Your task to perform on an android device: snooze an email in the gmail app Image 0: 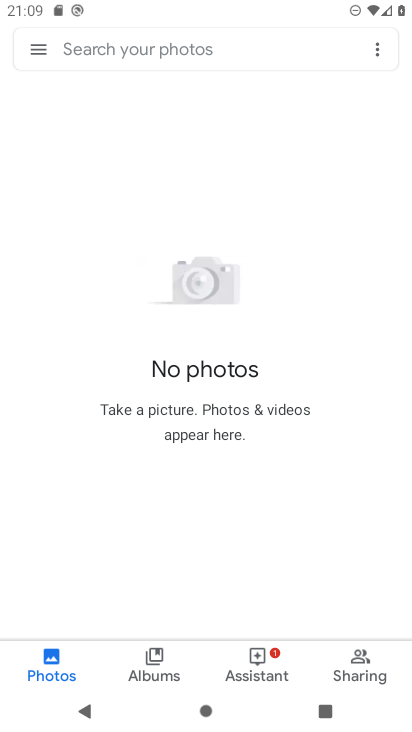
Step 0: press home button
Your task to perform on an android device: snooze an email in the gmail app Image 1: 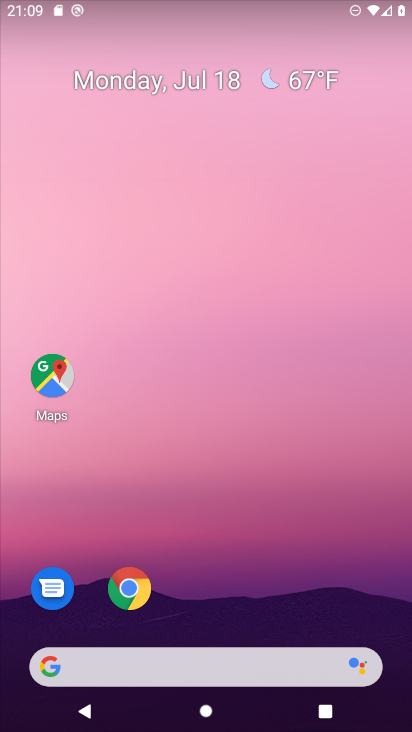
Step 1: drag from (381, 630) to (314, 122)
Your task to perform on an android device: snooze an email in the gmail app Image 2: 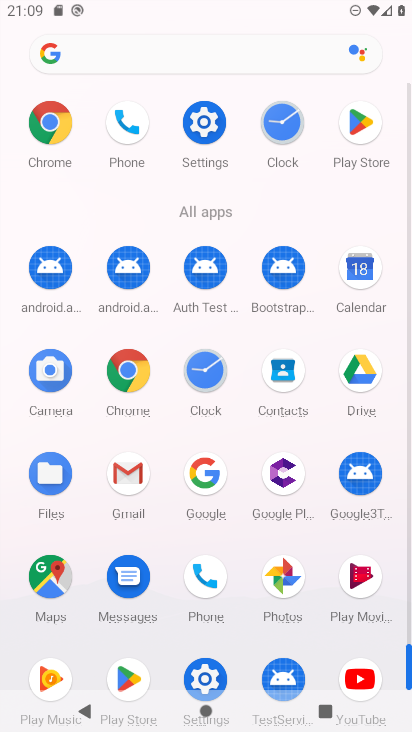
Step 2: click (127, 474)
Your task to perform on an android device: snooze an email in the gmail app Image 3: 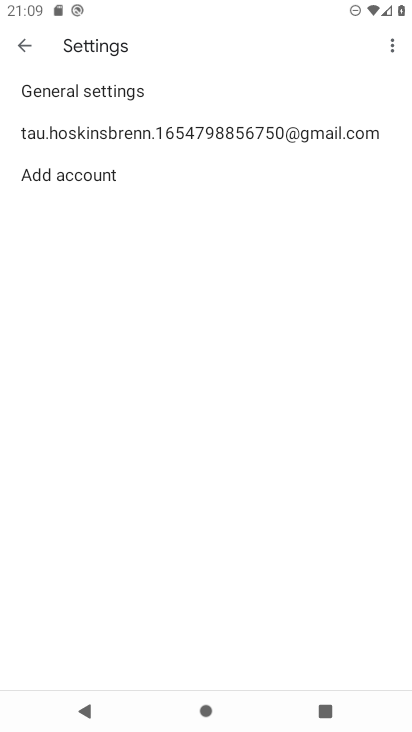
Step 3: press back button
Your task to perform on an android device: snooze an email in the gmail app Image 4: 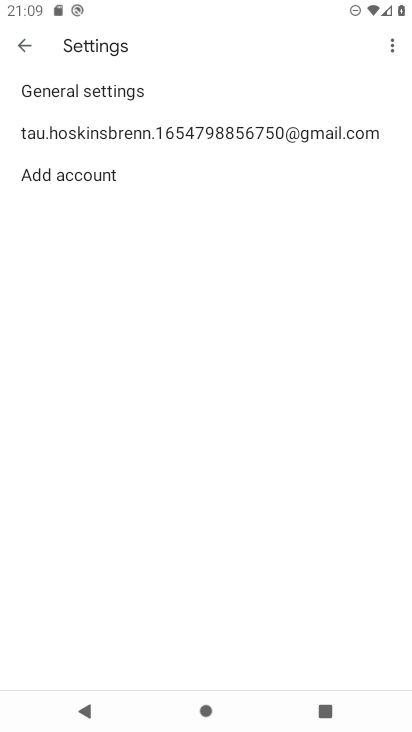
Step 4: press back button
Your task to perform on an android device: snooze an email in the gmail app Image 5: 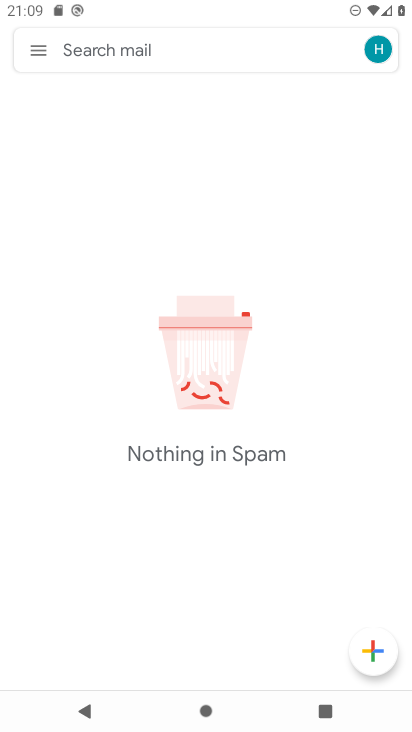
Step 5: click (40, 49)
Your task to perform on an android device: snooze an email in the gmail app Image 6: 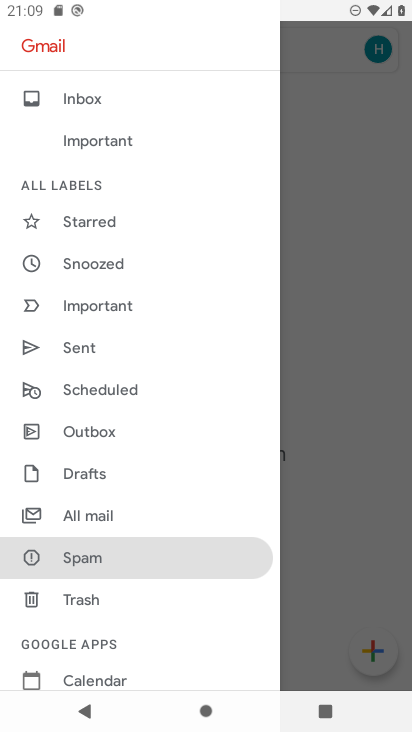
Step 6: click (88, 513)
Your task to perform on an android device: snooze an email in the gmail app Image 7: 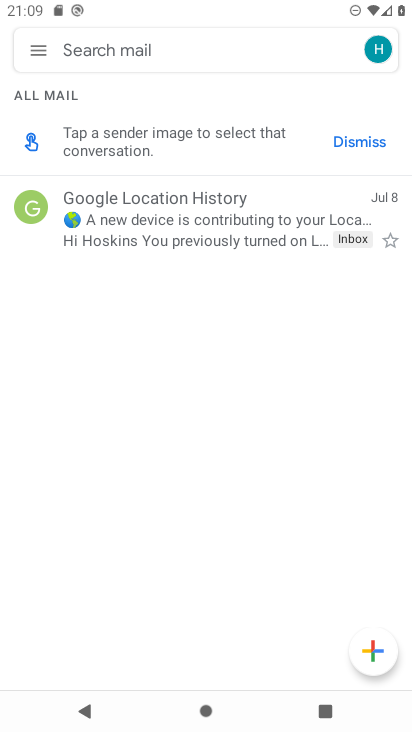
Step 7: click (180, 197)
Your task to perform on an android device: snooze an email in the gmail app Image 8: 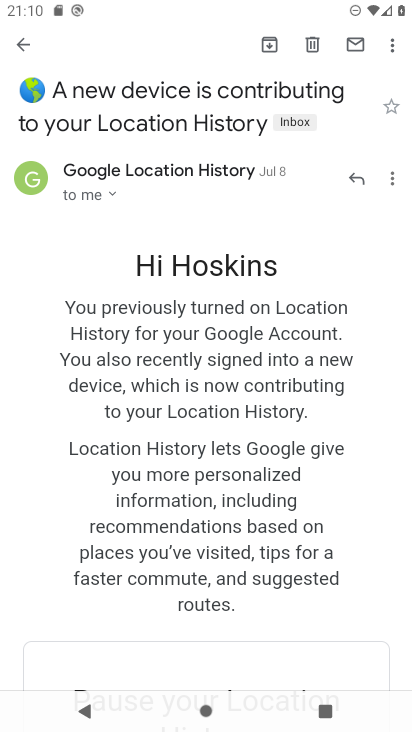
Step 8: click (389, 52)
Your task to perform on an android device: snooze an email in the gmail app Image 9: 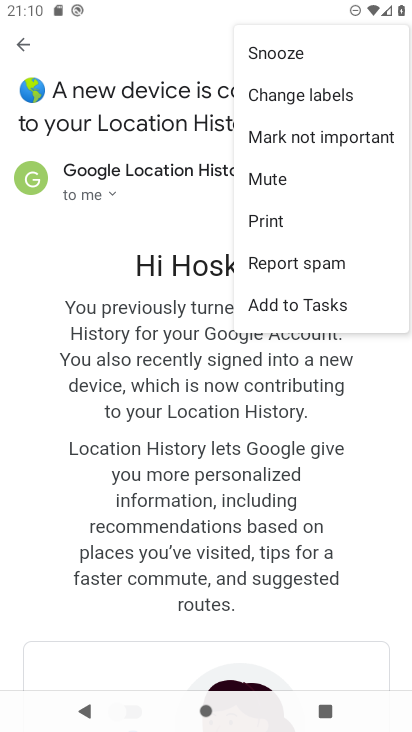
Step 9: click (279, 50)
Your task to perform on an android device: snooze an email in the gmail app Image 10: 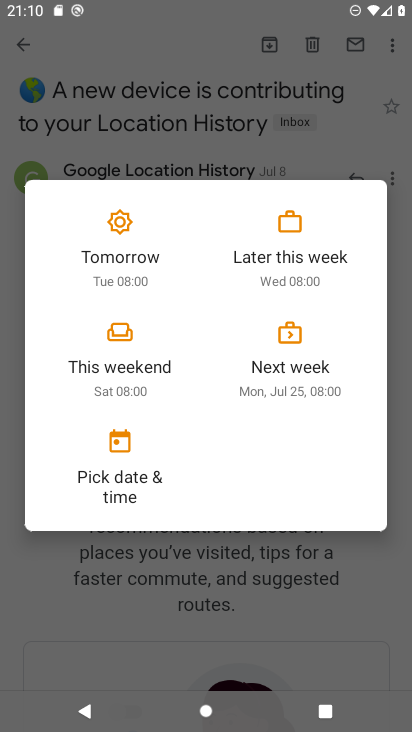
Step 10: click (133, 256)
Your task to perform on an android device: snooze an email in the gmail app Image 11: 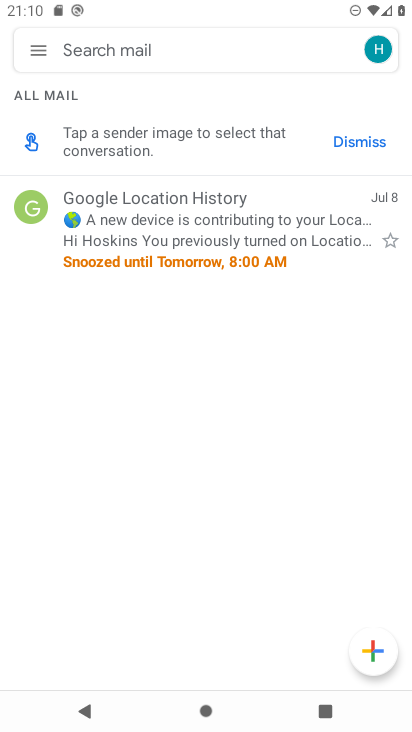
Step 11: task complete